Your task to perform on an android device: Open the calendar app, open the side menu, and click the "Day" option Image 0: 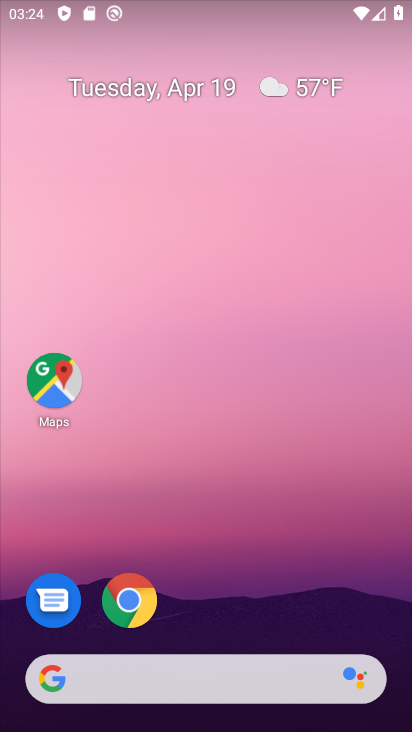
Step 0: drag from (356, 621) to (226, 113)
Your task to perform on an android device: Open the calendar app, open the side menu, and click the "Day" option Image 1: 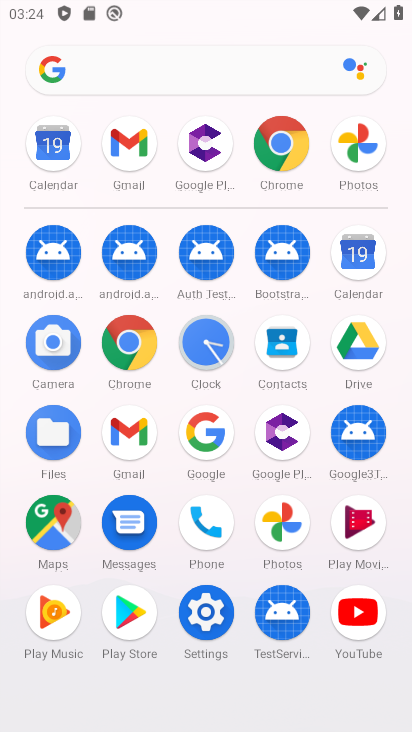
Step 1: click (51, 149)
Your task to perform on an android device: Open the calendar app, open the side menu, and click the "Day" option Image 2: 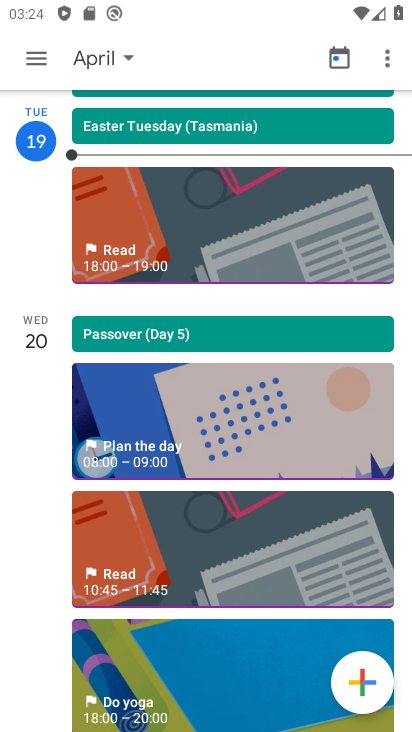
Step 2: click (36, 50)
Your task to perform on an android device: Open the calendar app, open the side menu, and click the "Day" option Image 3: 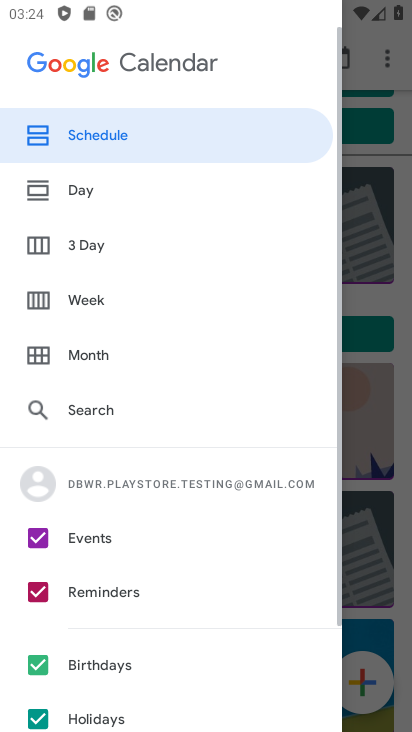
Step 3: click (95, 189)
Your task to perform on an android device: Open the calendar app, open the side menu, and click the "Day" option Image 4: 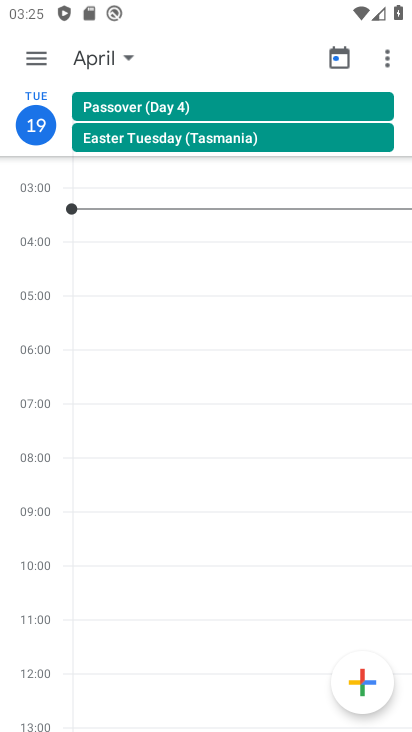
Step 4: task complete